Your task to perform on an android device: Open my contact list Image 0: 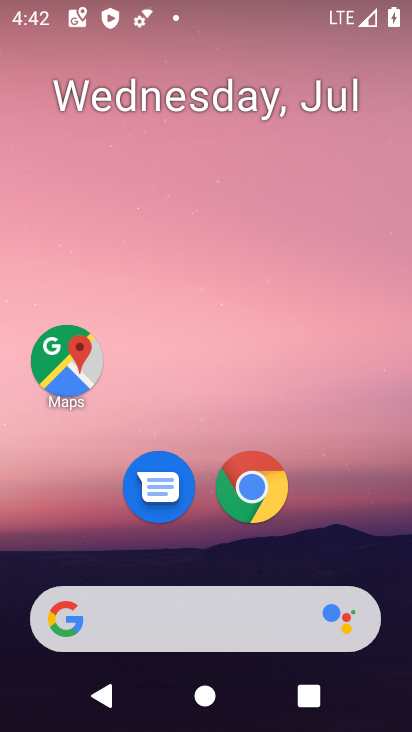
Step 0: drag from (197, 538) to (298, 16)
Your task to perform on an android device: Open my contact list Image 1: 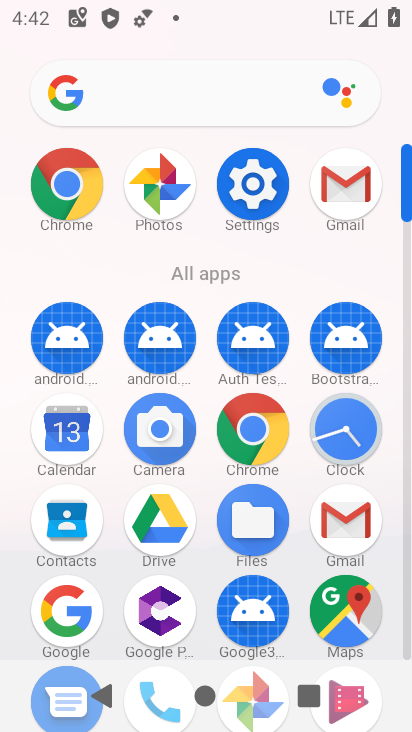
Step 1: click (78, 534)
Your task to perform on an android device: Open my contact list Image 2: 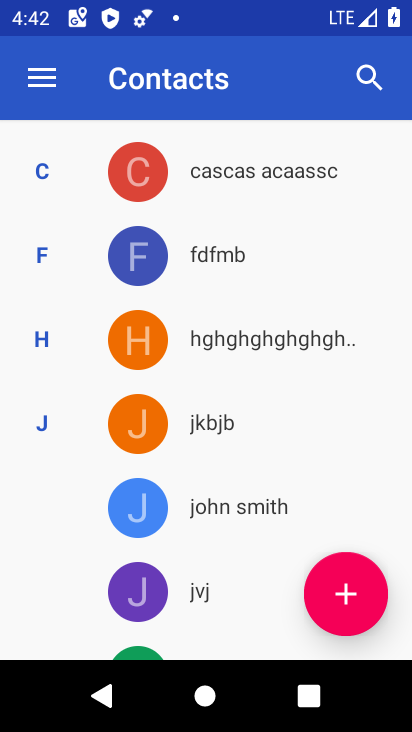
Step 2: task complete